Your task to perform on an android device: set the timer Image 0: 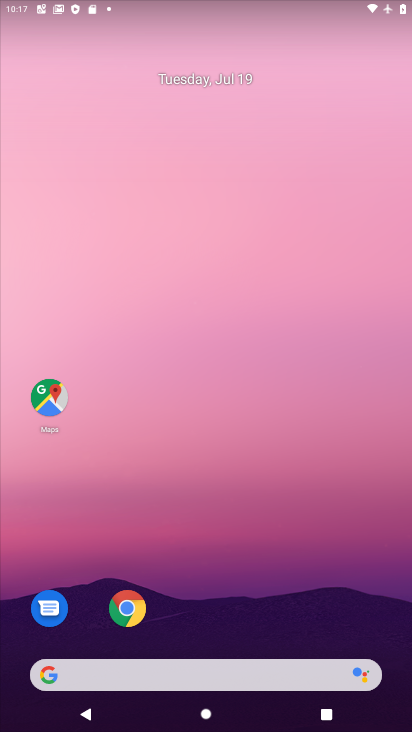
Step 0: drag from (261, 285) to (260, 99)
Your task to perform on an android device: set the timer Image 1: 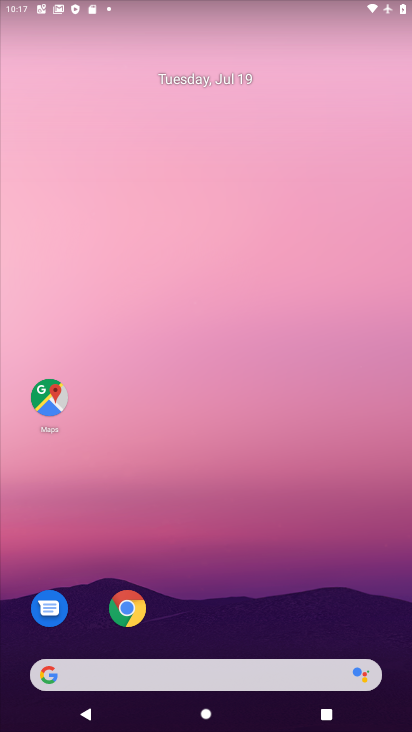
Step 1: drag from (280, 587) to (290, 121)
Your task to perform on an android device: set the timer Image 2: 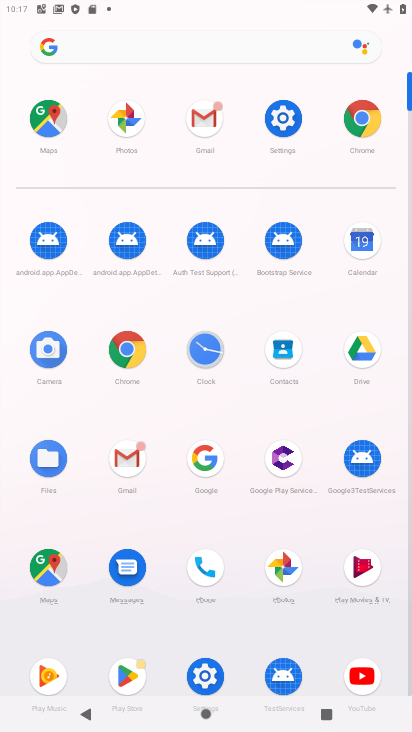
Step 2: click (206, 350)
Your task to perform on an android device: set the timer Image 3: 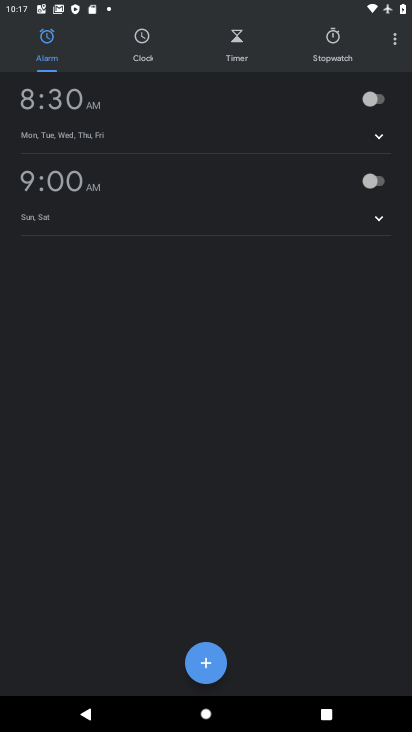
Step 3: click (248, 46)
Your task to perform on an android device: set the timer Image 4: 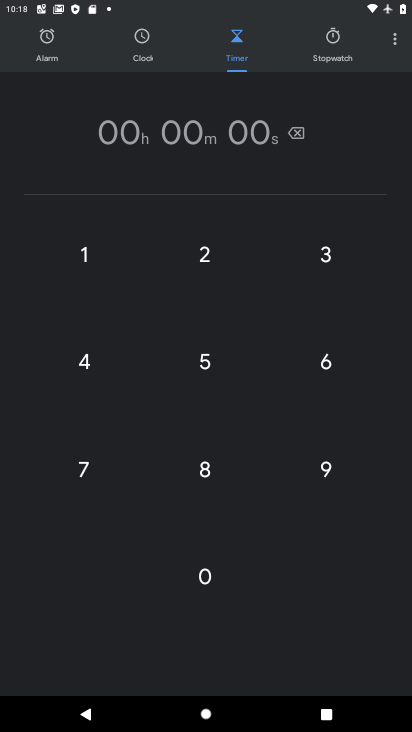
Step 4: click (207, 358)
Your task to perform on an android device: set the timer Image 5: 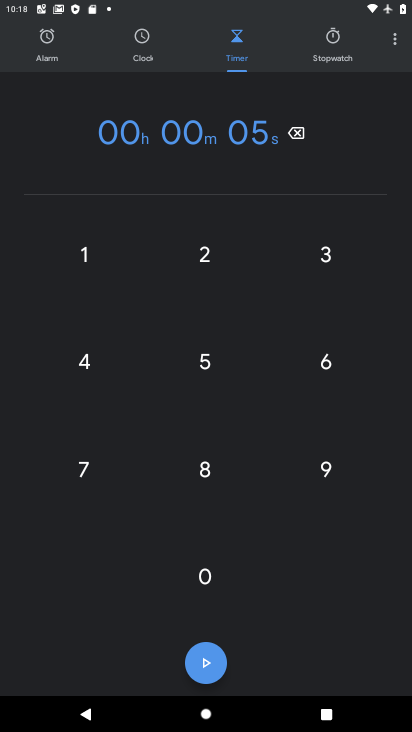
Step 5: task complete